Your task to perform on an android device: check out phone information Image 0: 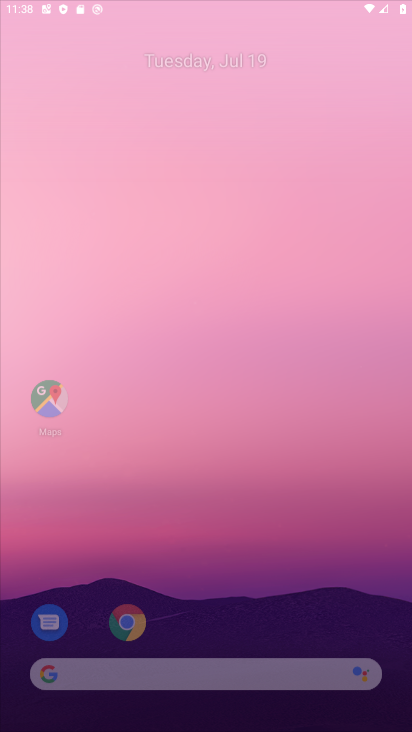
Step 0: click (77, 685)
Your task to perform on an android device: check out phone information Image 1: 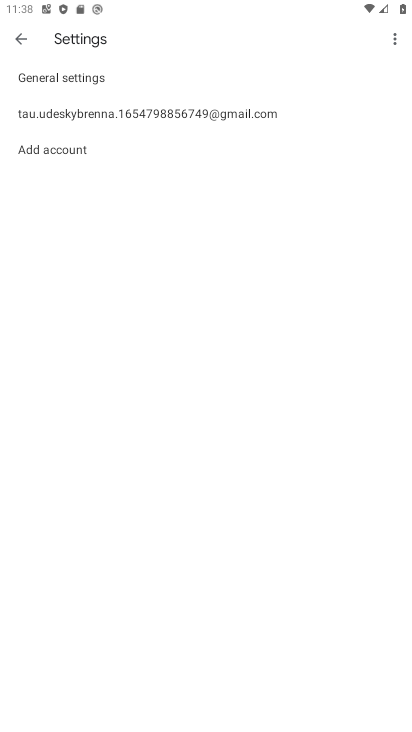
Step 1: click (25, 30)
Your task to perform on an android device: check out phone information Image 2: 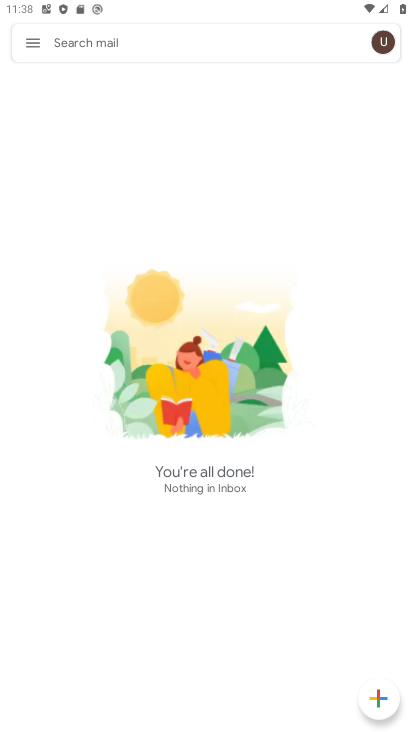
Step 2: press home button
Your task to perform on an android device: check out phone information Image 3: 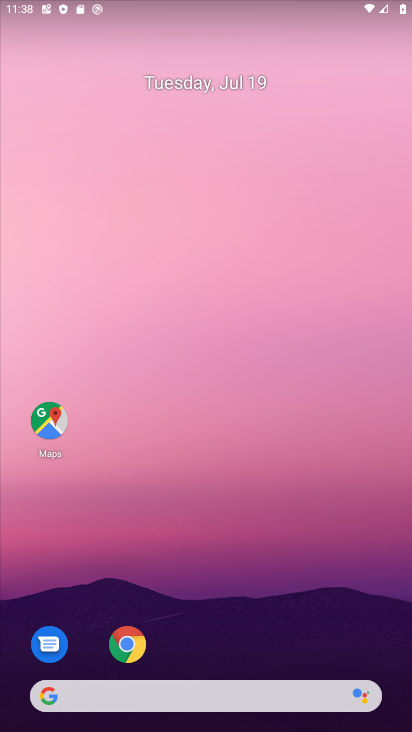
Step 3: drag from (30, 697) to (321, 2)
Your task to perform on an android device: check out phone information Image 4: 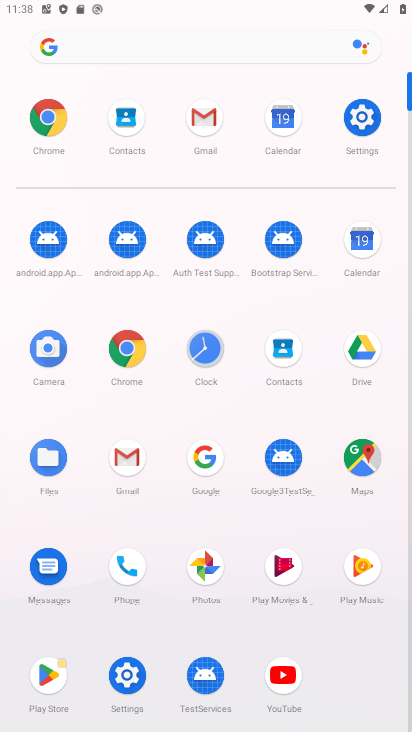
Step 4: click (120, 575)
Your task to perform on an android device: check out phone information Image 5: 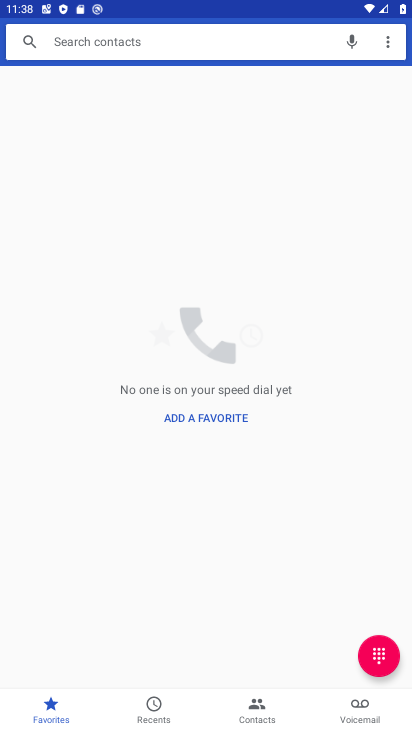
Step 5: task complete